Your task to perform on an android device: read, delete, or share a saved page in the chrome app Image 0: 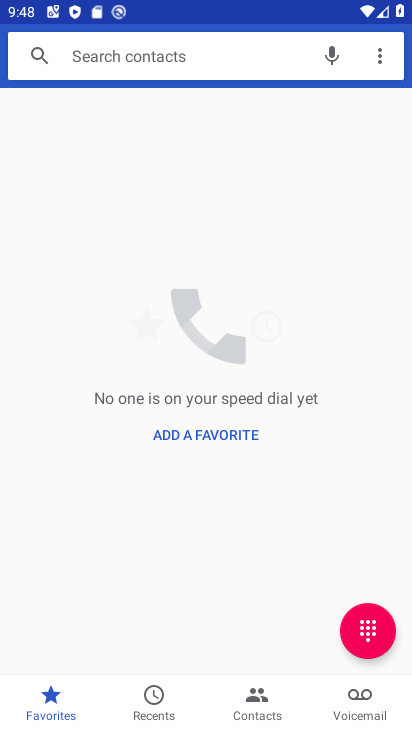
Step 0: press home button
Your task to perform on an android device: read, delete, or share a saved page in the chrome app Image 1: 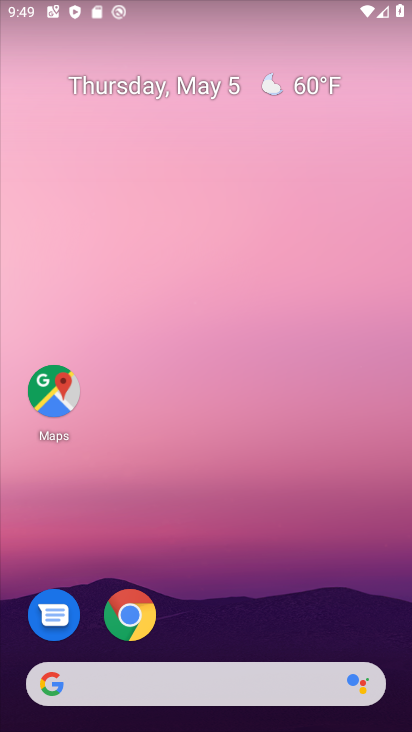
Step 1: click (131, 615)
Your task to perform on an android device: read, delete, or share a saved page in the chrome app Image 2: 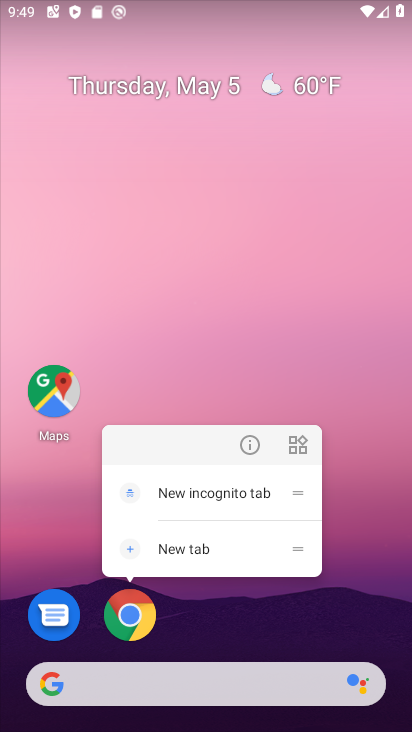
Step 2: click (134, 619)
Your task to perform on an android device: read, delete, or share a saved page in the chrome app Image 3: 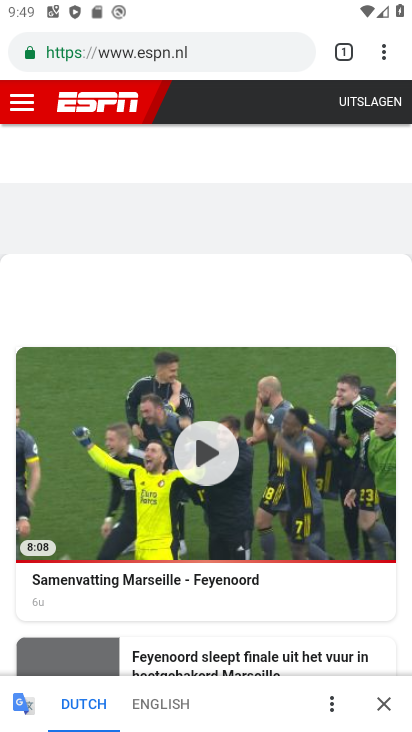
Step 3: click (375, 52)
Your task to perform on an android device: read, delete, or share a saved page in the chrome app Image 4: 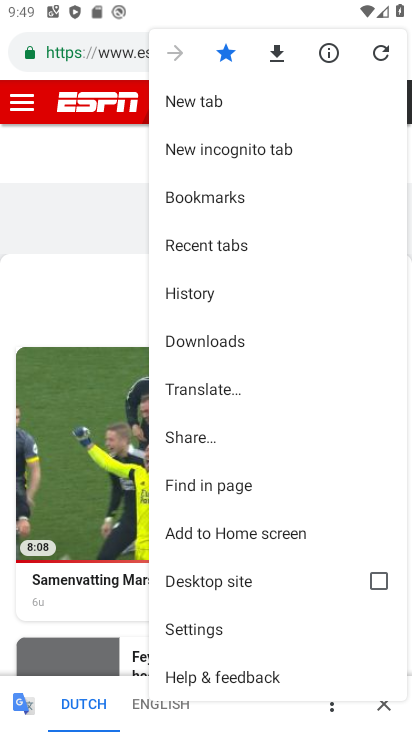
Step 4: click (222, 342)
Your task to perform on an android device: read, delete, or share a saved page in the chrome app Image 5: 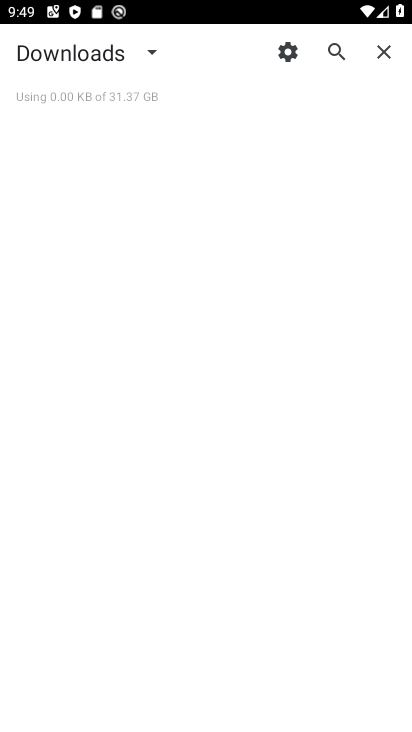
Step 5: task complete